Your task to perform on an android device: What is the recent news? Image 0: 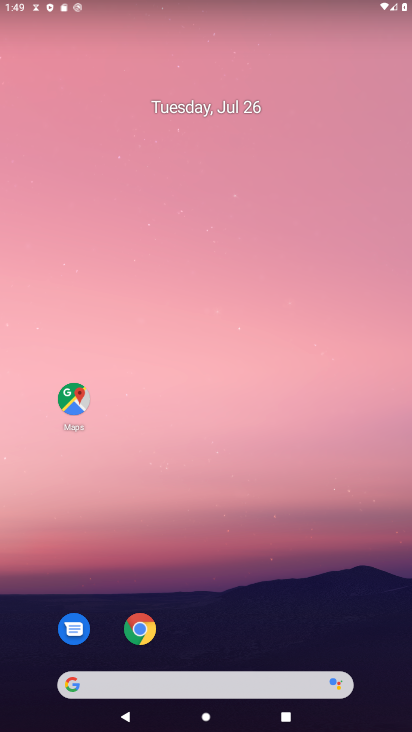
Step 0: drag from (253, 669) to (293, 80)
Your task to perform on an android device: What is the recent news? Image 1: 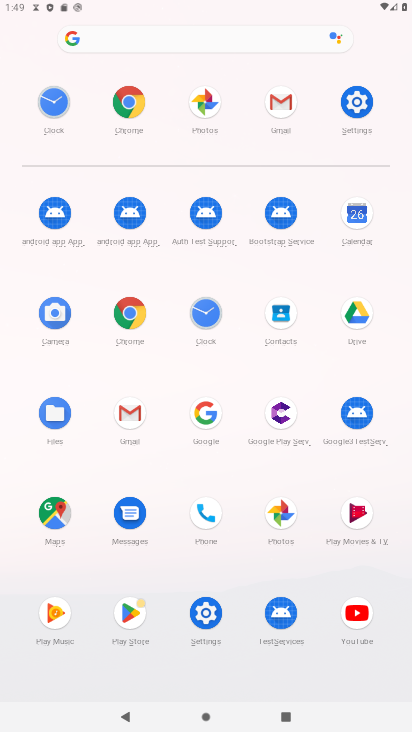
Step 1: click (117, 314)
Your task to perform on an android device: What is the recent news? Image 2: 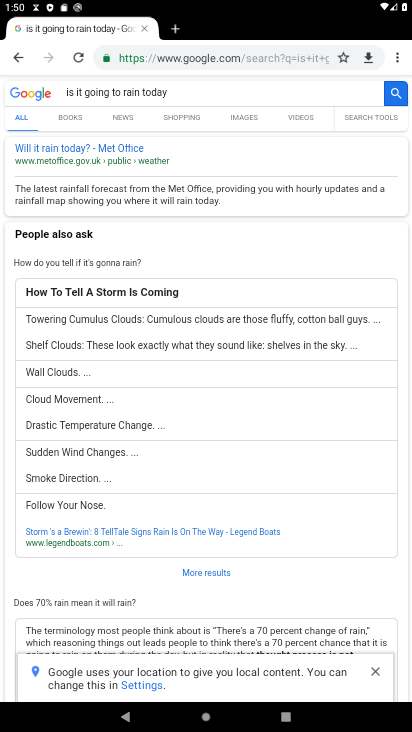
Step 2: click (269, 62)
Your task to perform on an android device: What is the recent news? Image 3: 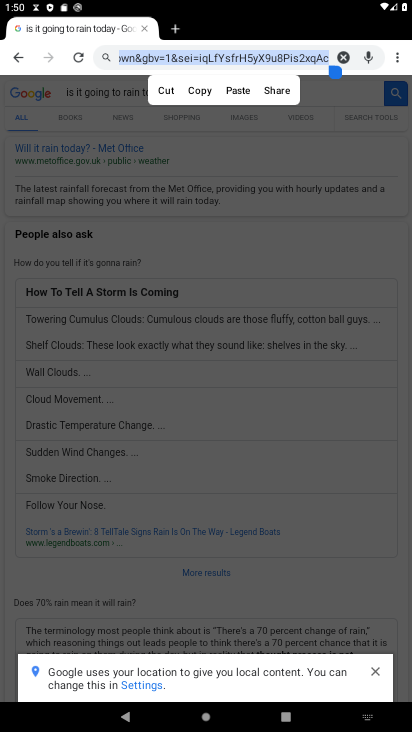
Step 3: type "recent news"
Your task to perform on an android device: What is the recent news? Image 4: 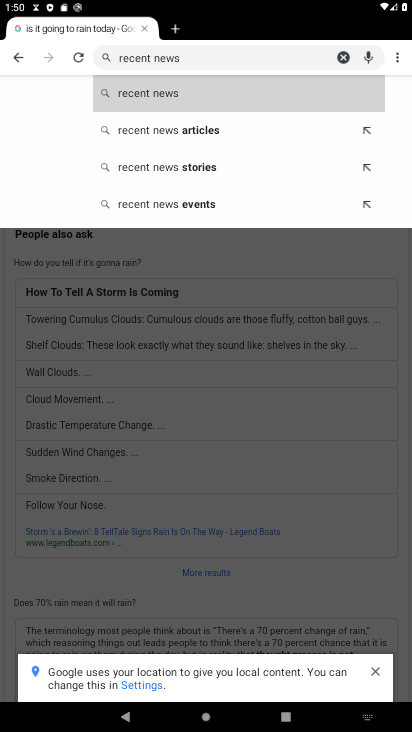
Step 4: click (152, 85)
Your task to perform on an android device: What is the recent news? Image 5: 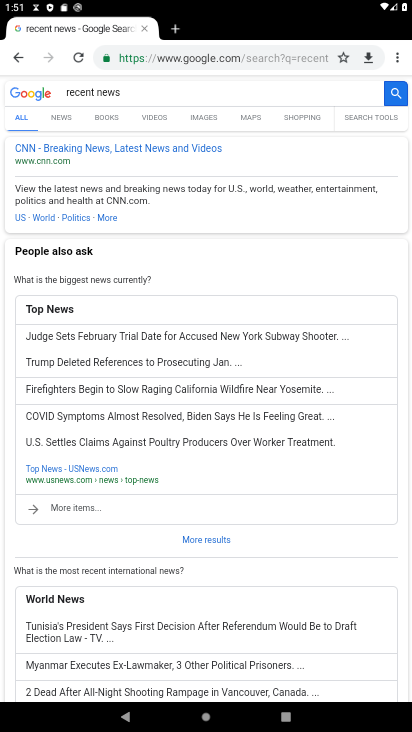
Step 5: task complete